Your task to perform on an android device: open sync settings in chrome Image 0: 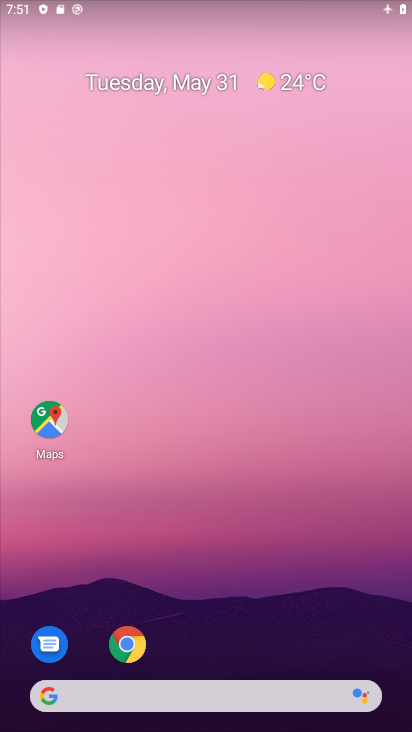
Step 0: drag from (238, 585) to (261, 222)
Your task to perform on an android device: open sync settings in chrome Image 1: 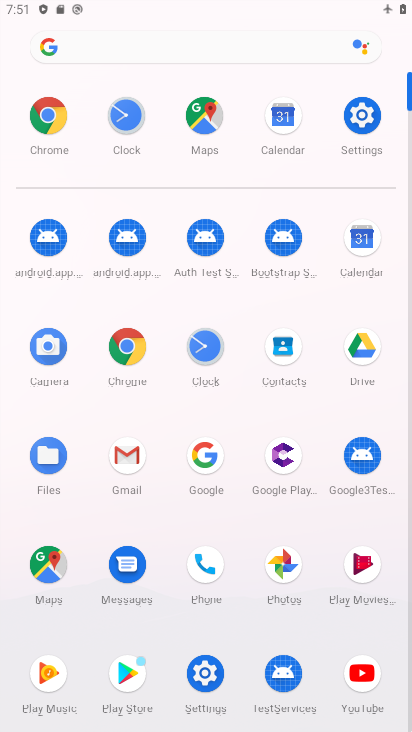
Step 1: click (124, 357)
Your task to perform on an android device: open sync settings in chrome Image 2: 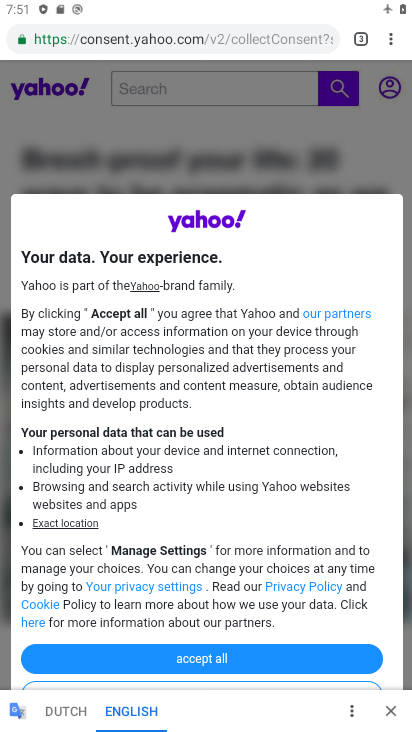
Step 2: click (394, 705)
Your task to perform on an android device: open sync settings in chrome Image 3: 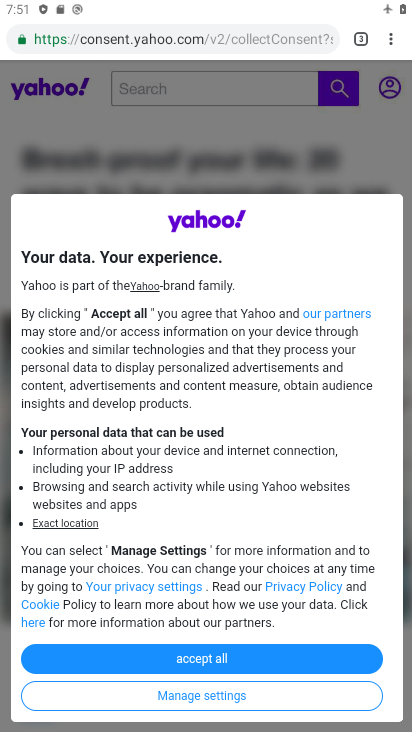
Step 3: click (275, 655)
Your task to perform on an android device: open sync settings in chrome Image 4: 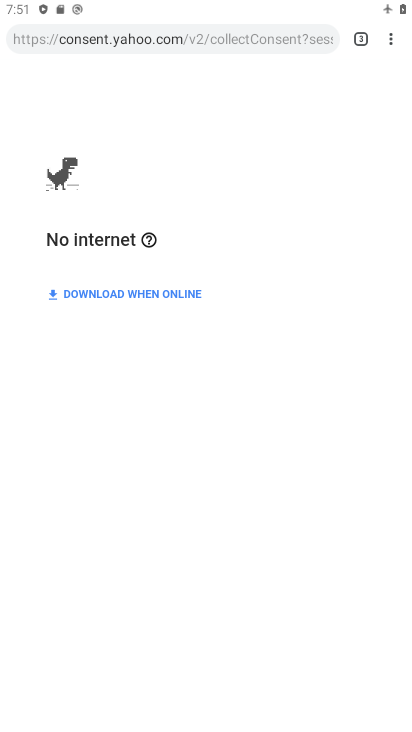
Step 4: task complete